Your task to perform on an android device: turn on location history Image 0: 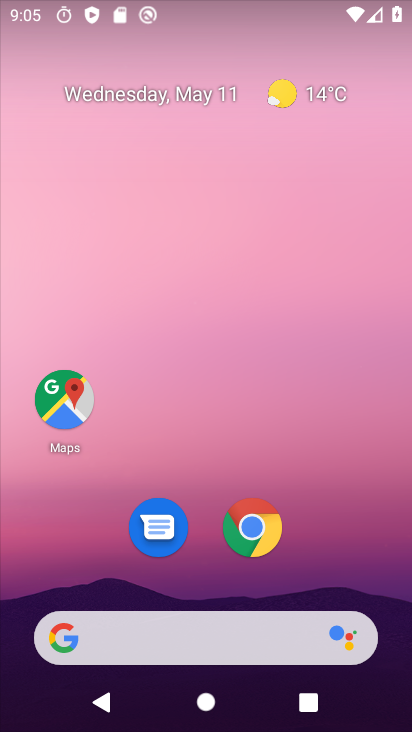
Step 0: drag from (219, 607) to (227, 125)
Your task to perform on an android device: turn on location history Image 1: 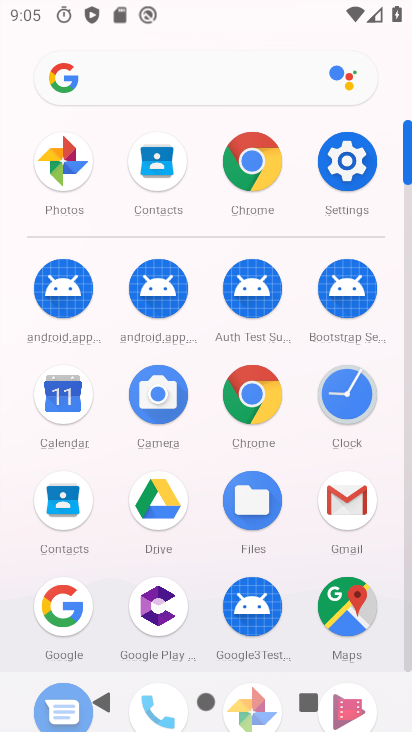
Step 1: click (342, 179)
Your task to perform on an android device: turn on location history Image 2: 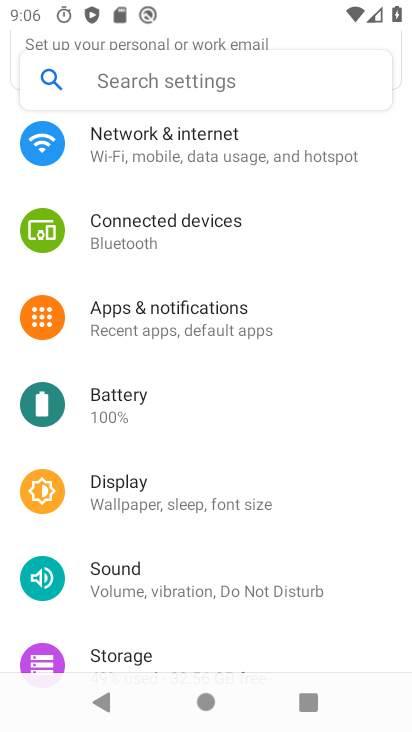
Step 2: drag from (216, 465) to (215, 298)
Your task to perform on an android device: turn on location history Image 3: 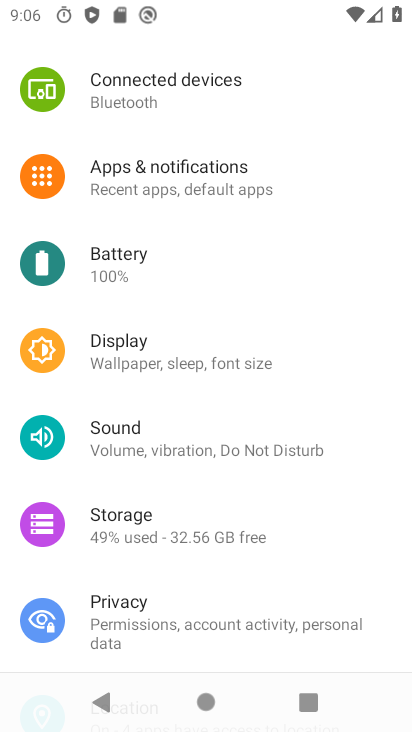
Step 3: drag from (147, 423) to (151, 329)
Your task to perform on an android device: turn on location history Image 4: 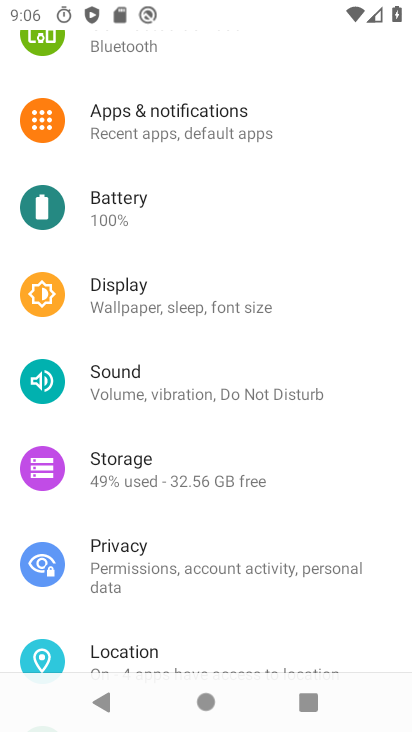
Step 4: drag from (163, 516) to (161, 376)
Your task to perform on an android device: turn on location history Image 5: 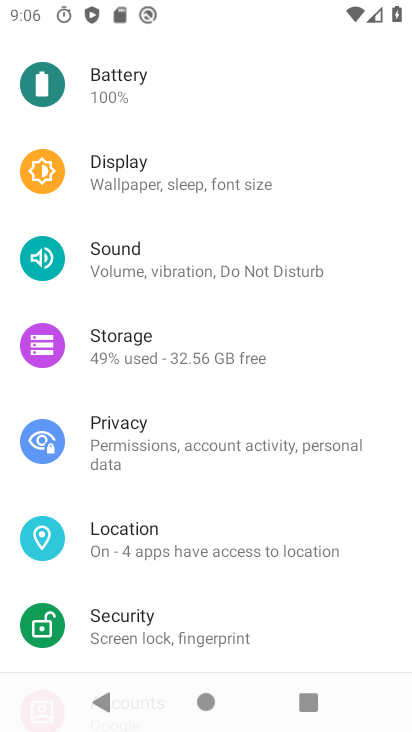
Step 5: click (174, 559)
Your task to perform on an android device: turn on location history Image 6: 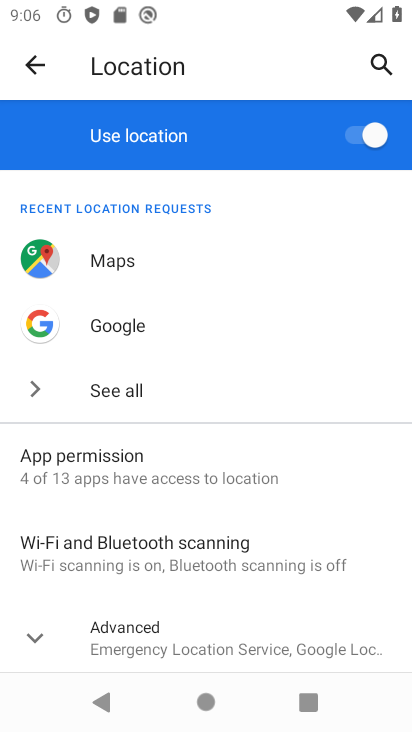
Step 6: drag from (233, 577) to (243, 356)
Your task to perform on an android device: turn on location history Image 7: 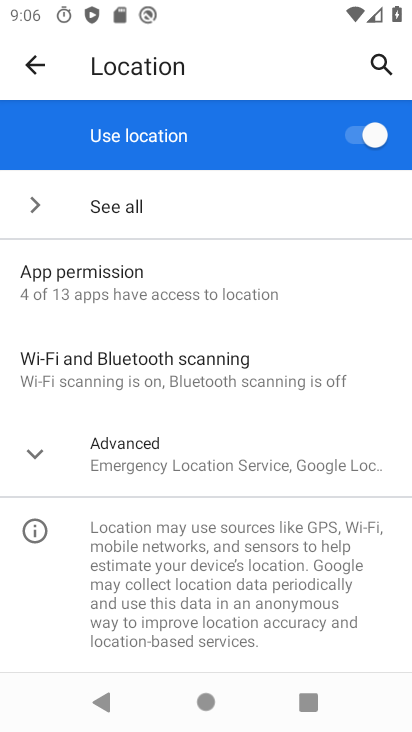
Step 7: click (161, 452)
Your task to perform on an android device: turn on location history Image 8: 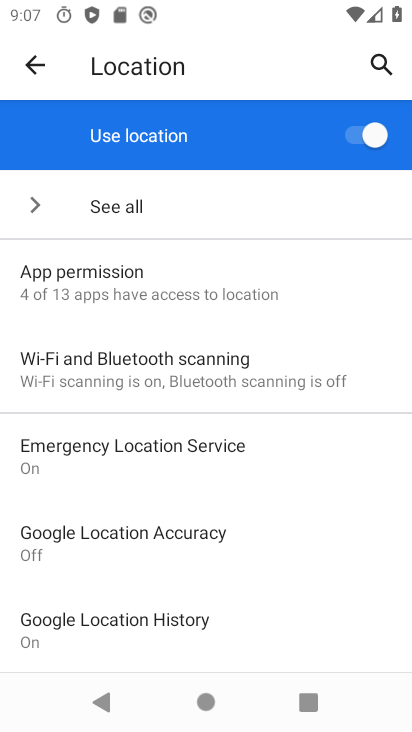
Step 8: drag from (211, 542) to (211, 390)
Your task to perform on an android device: turn on location history Image 9: 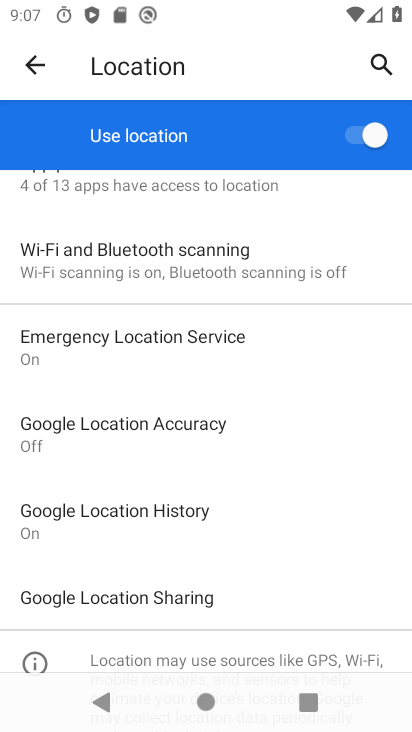
Step 9: click (173, 532)
Your task to perform on an android device: turn on location history Image 10: 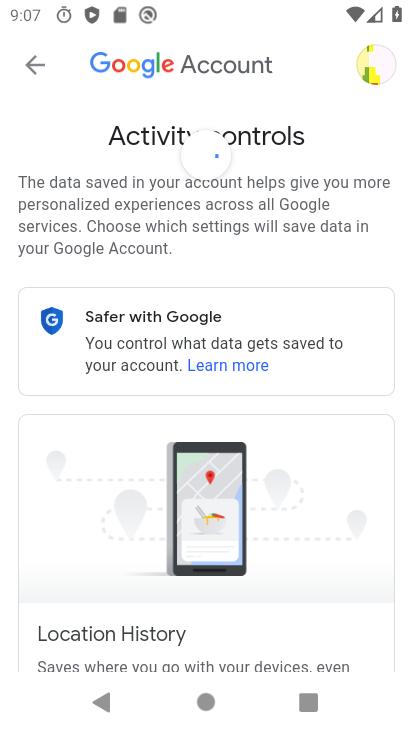
Step 10: task complete